Your task to perform on an android device: change text size in settings app Image 0: 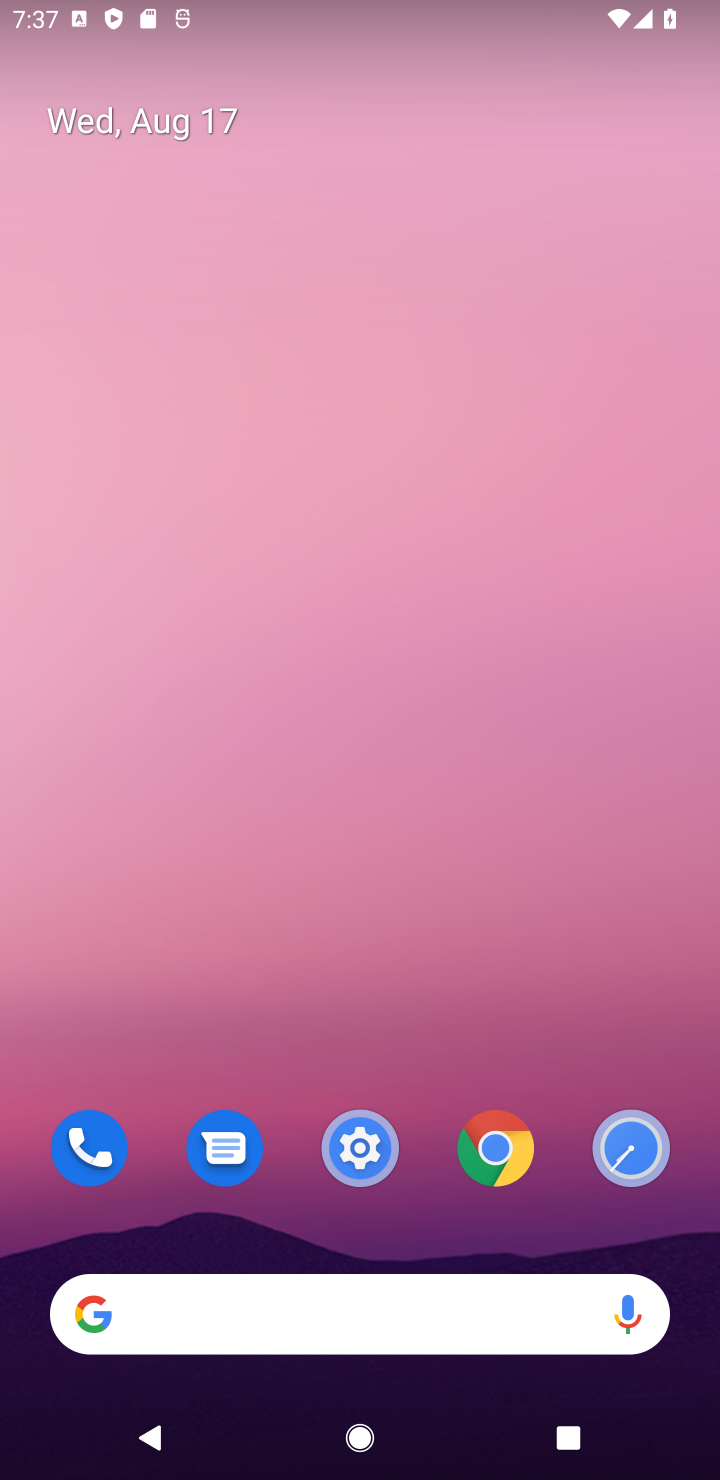
Step 0: click (365, 1151)
Your task to perform on an android device: change text size in settings app Image 1: 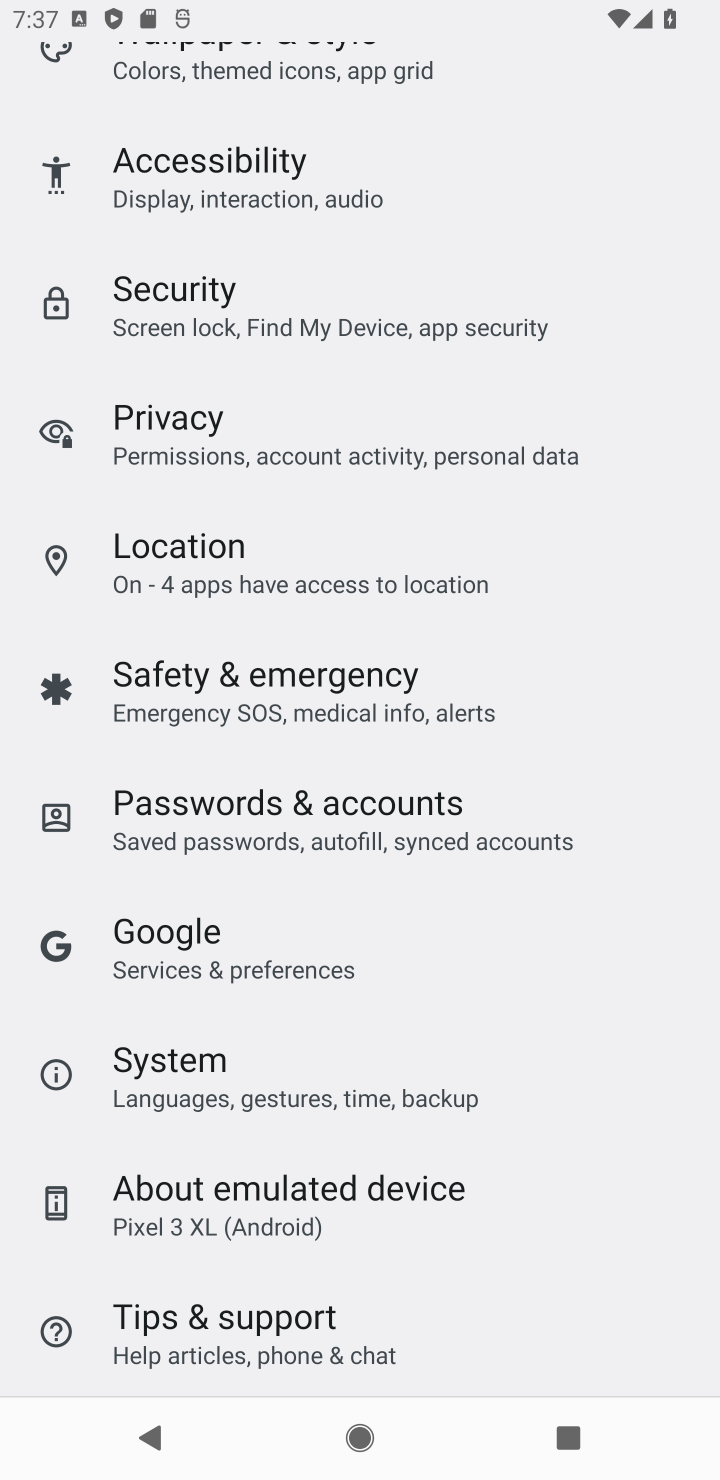
Step 1: drag from (560, 425) to (541, 940)
Your task to perform on an android device: change text size in settings app Image 2: 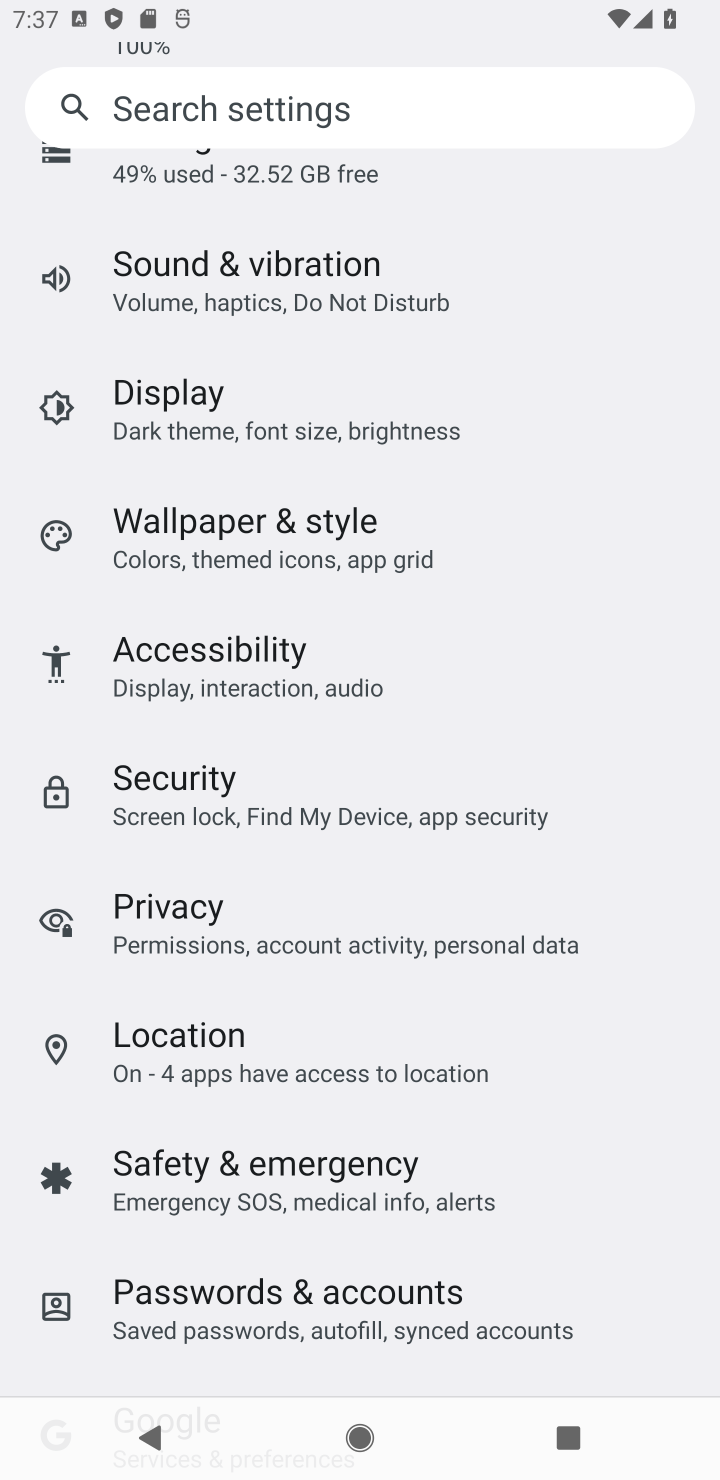
Step 2: drag from (567, 307) to (592, 960)
Your task to perform on an android device: change text size in settings app Image 3: 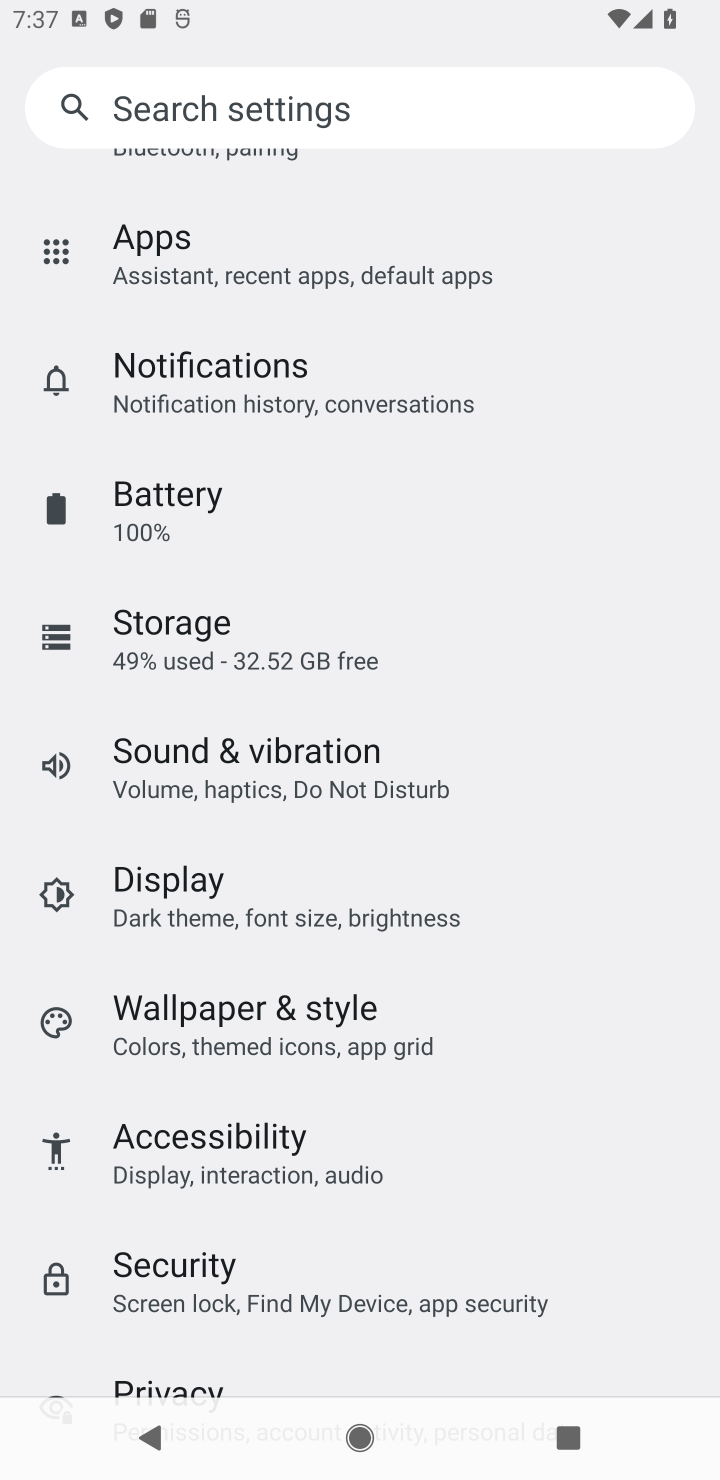
Step 3: click (588, 391)
Your task to perform on an android device: change text size in settings app Image 4: 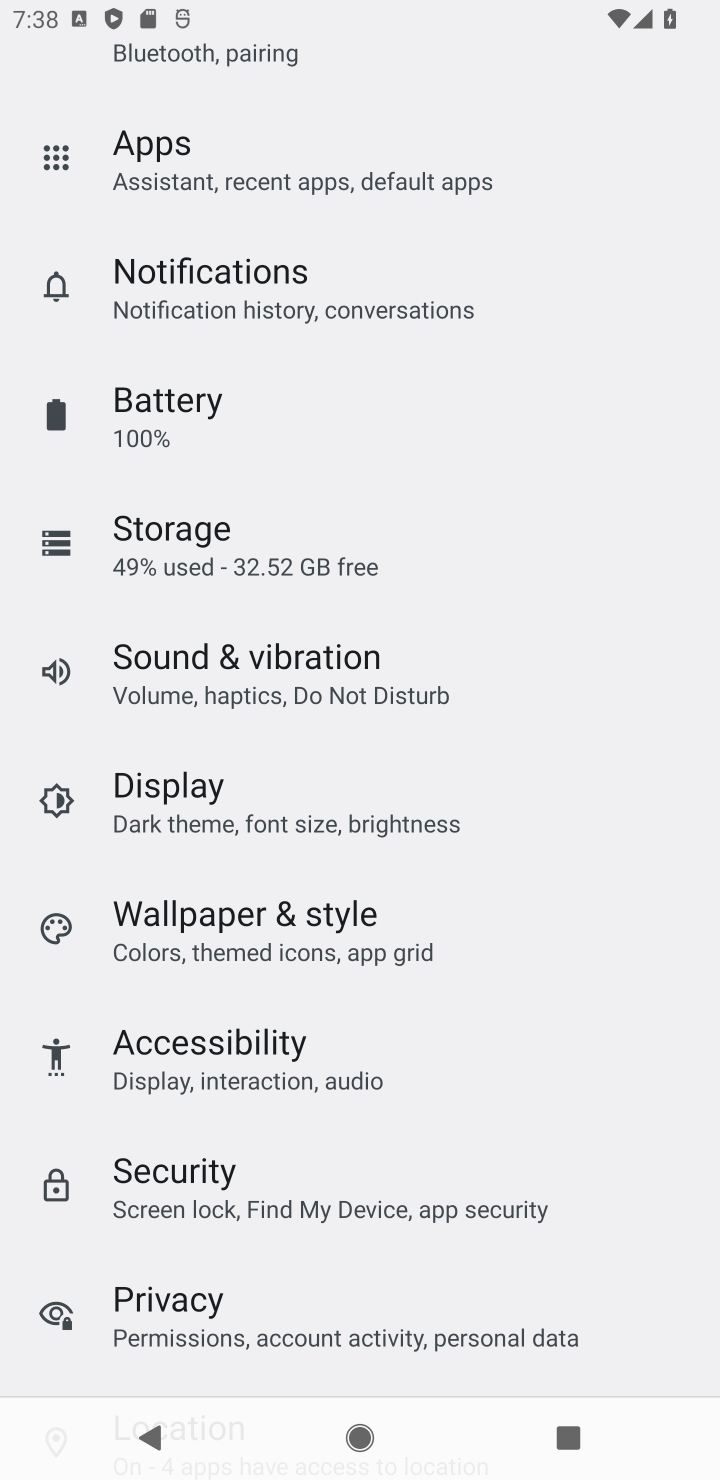
Step 4: click (182, 799)
Your task to perform on an android device: change text size in settings app Image 5: 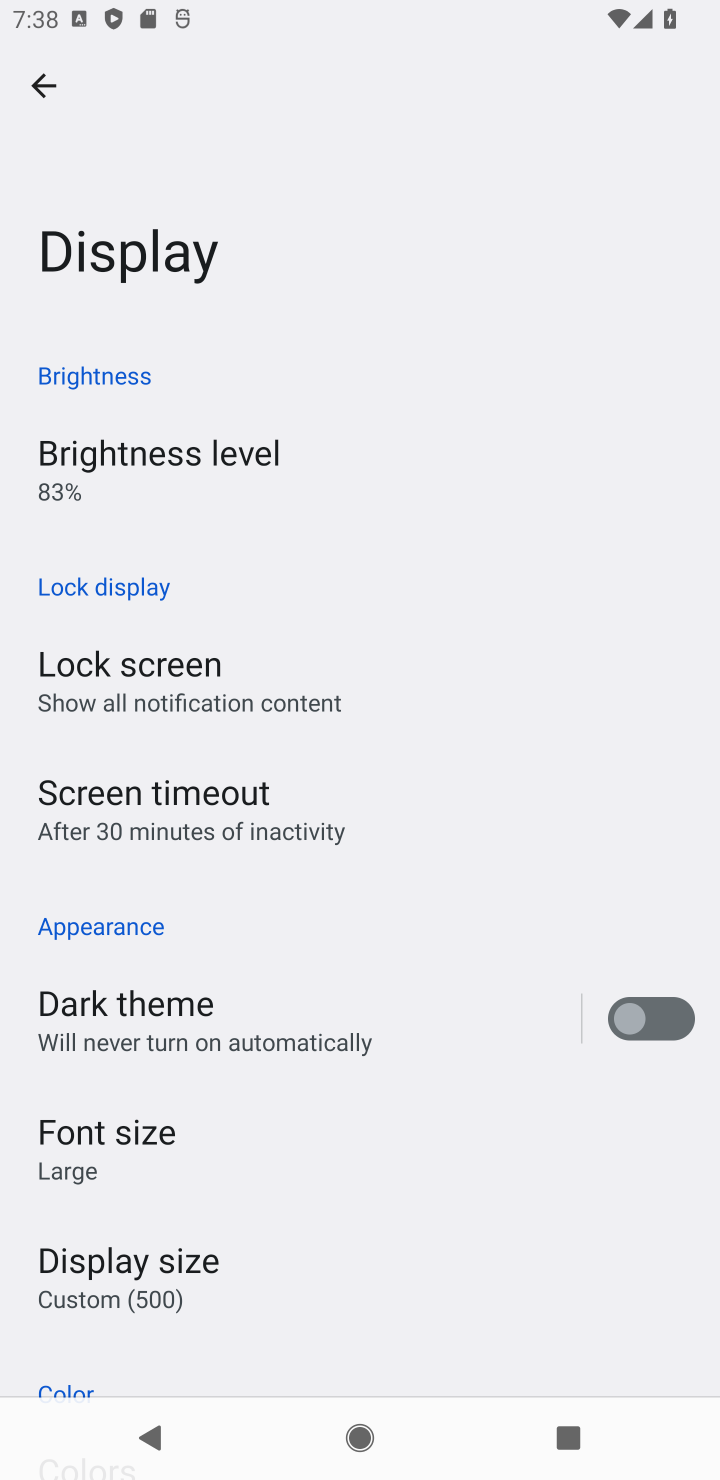
Step 5: drag from (434, 1182) to (439, 579)
Your task to perform on an android device: change text size in settings app Image 6: 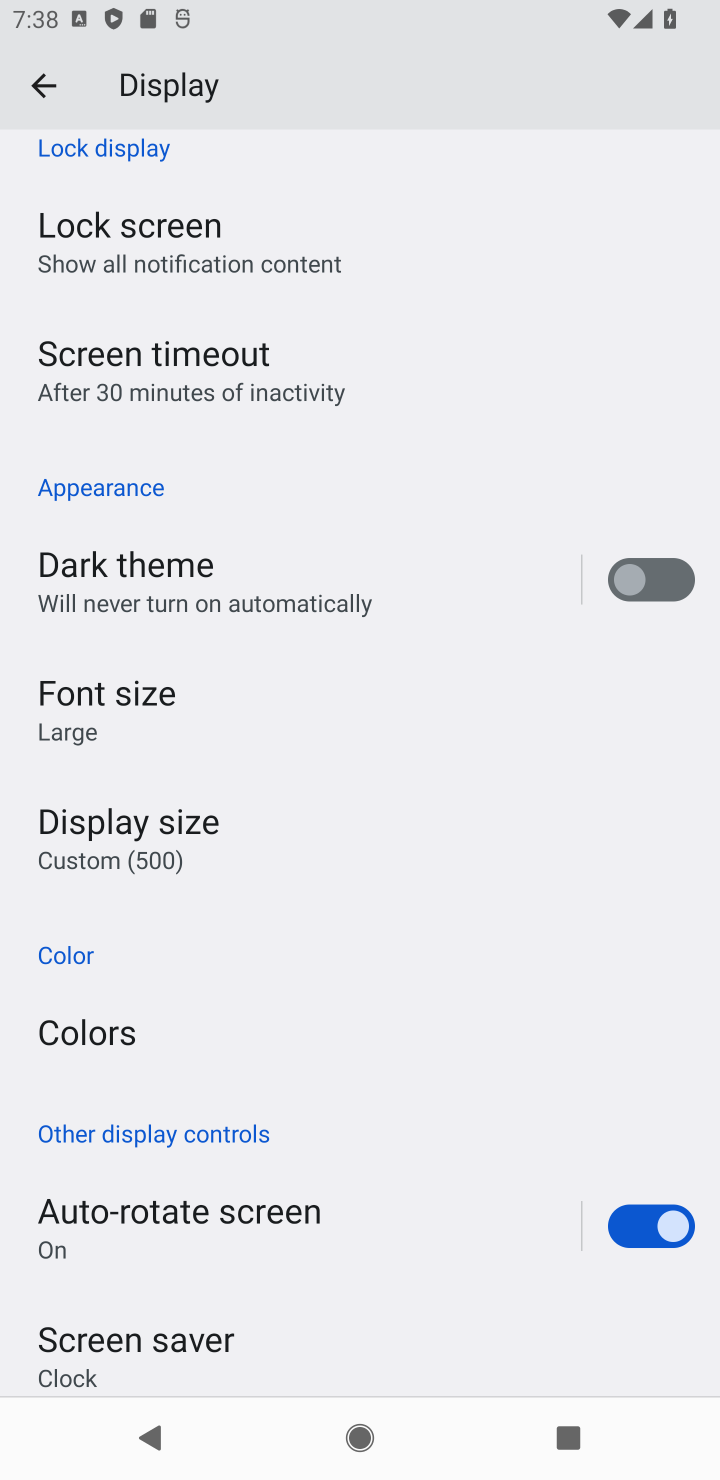
Step 6: click (60, 685)
Your task to perform on an android device: change text size in settings app Image 7: 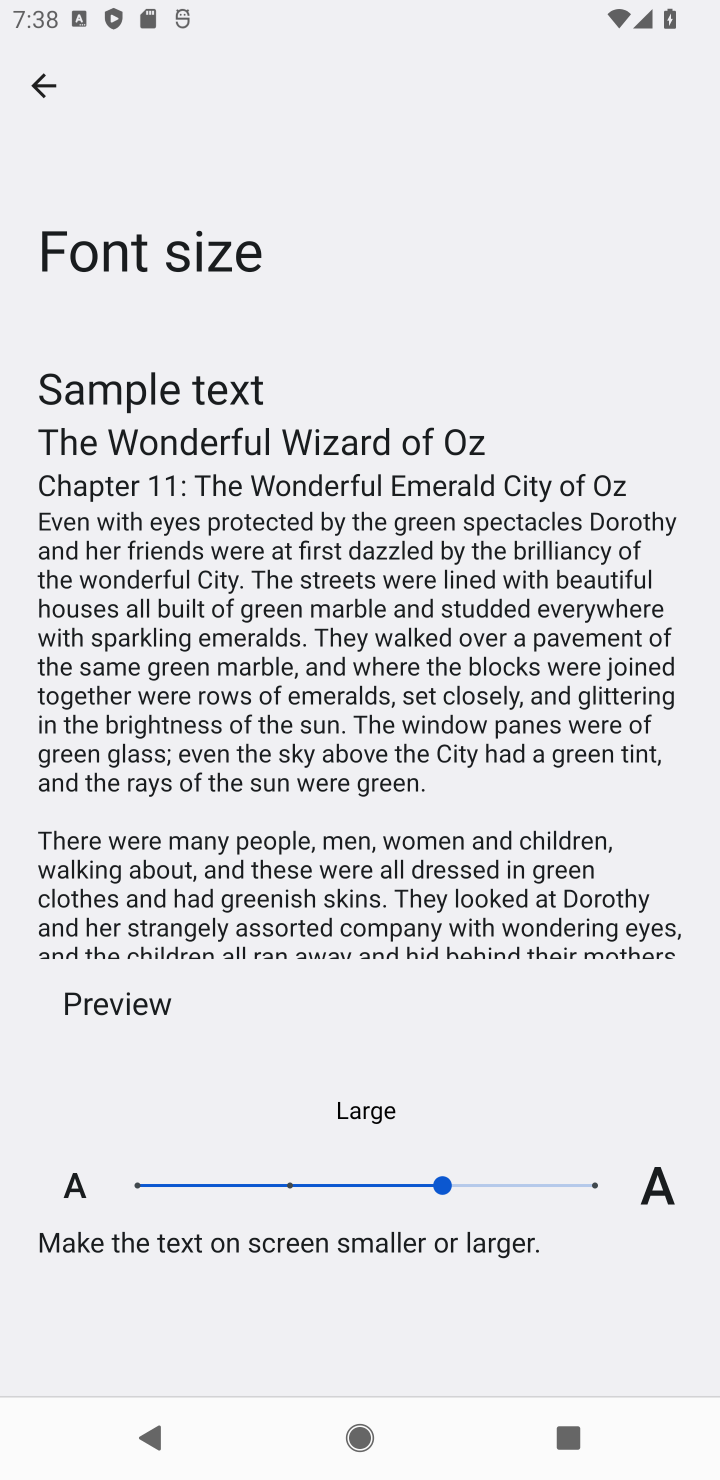
Step 7: click (587, 1183)
Your task to perform on an android device: change text size in settings app Image 8: 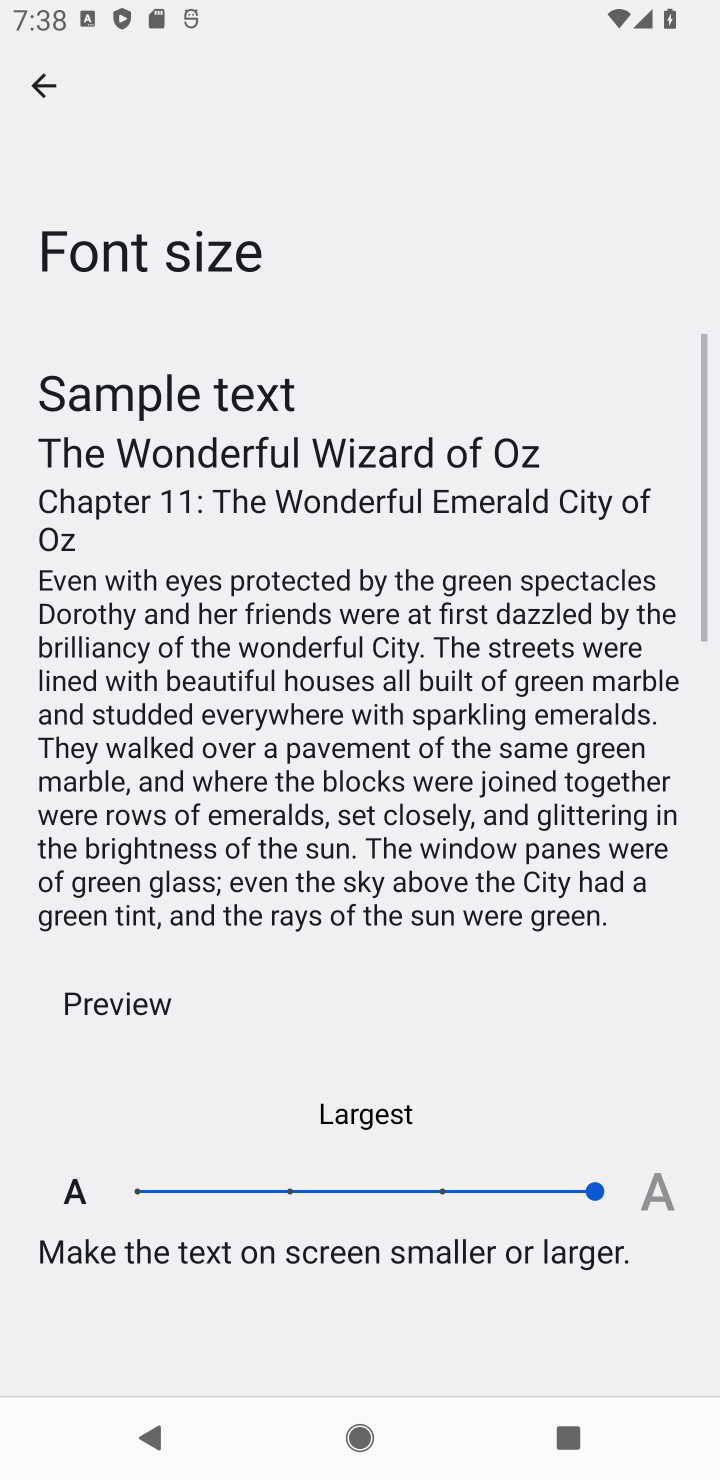
Step 8: task complete